Your task to perform on an android device: remove spam from my inbox in the gmail app Image 0: 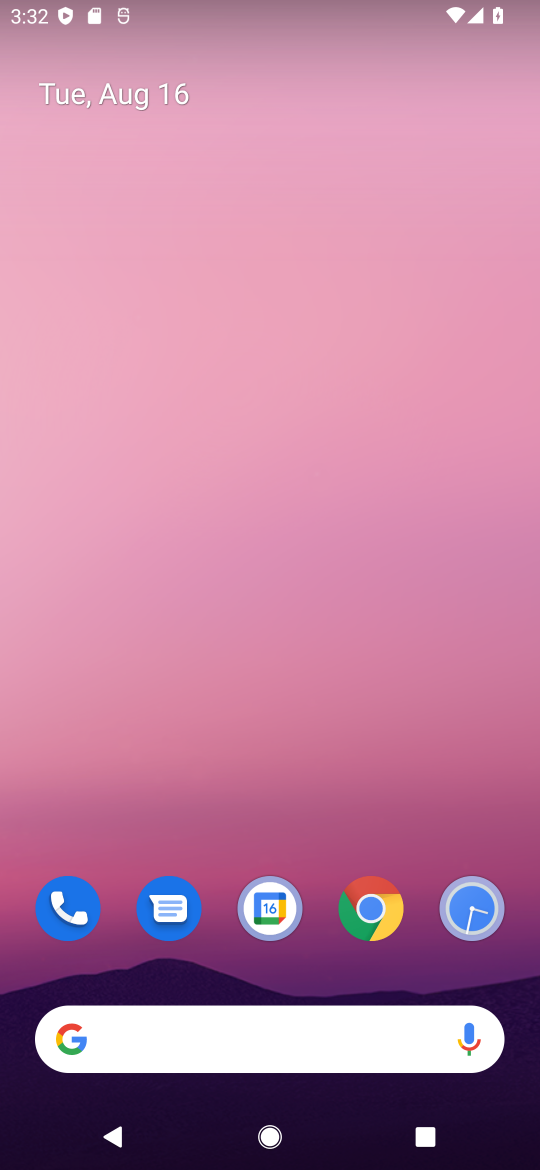
Step 0: press home button
Your task to perform on an android device: remove spam from my inbox in the gmail app Image 1: 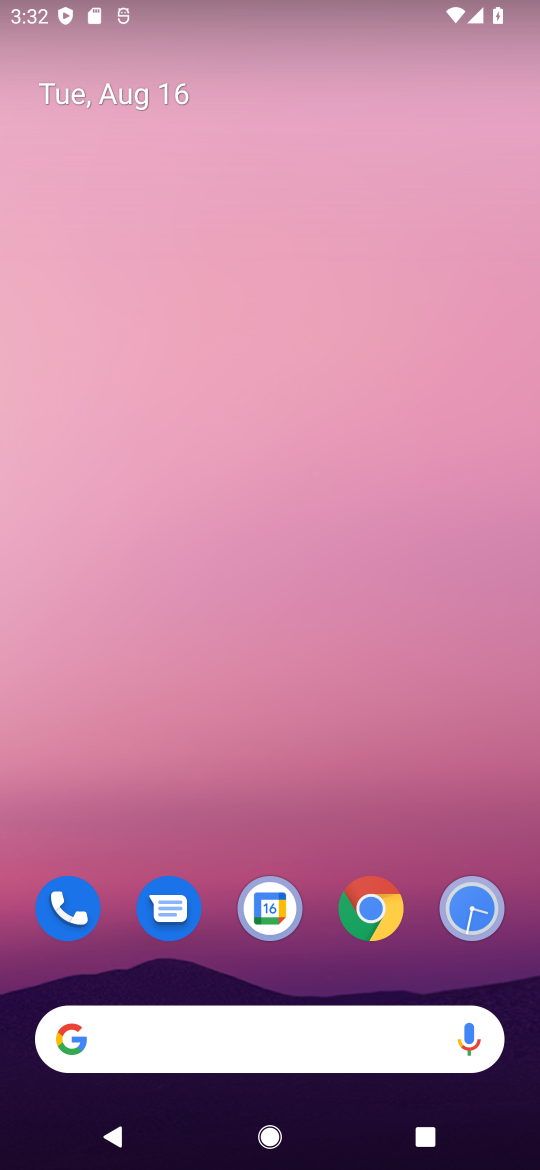
Step 1: drag from (313, 875) to (309, 97)
Your task to perform on an android device: remove spam from my inbox in the gmail app Image 2: 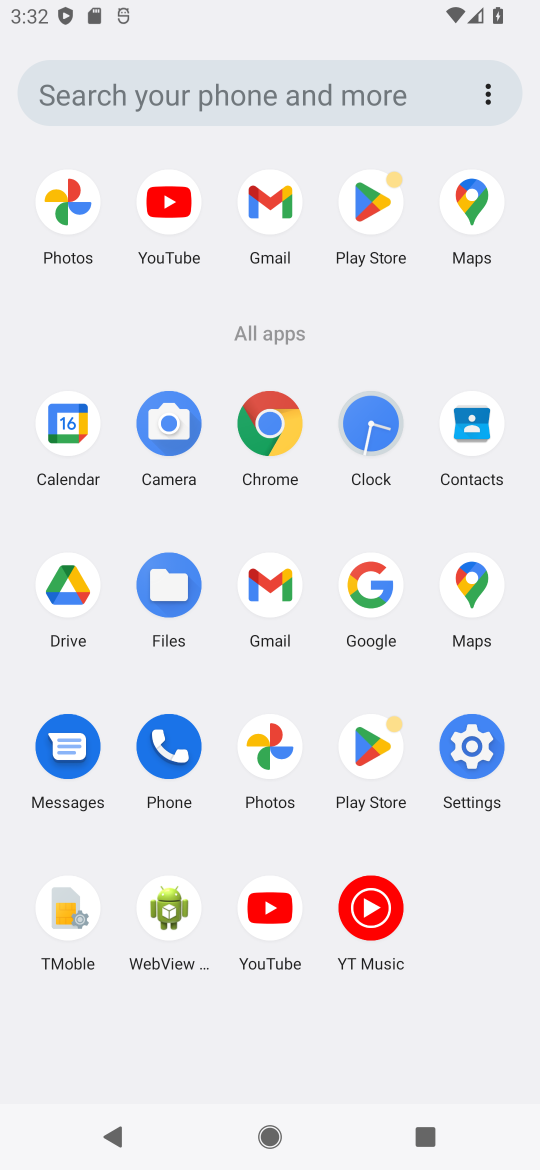
Step 2: click (269, 573)
Your task to perform on an android device: remove spam from my inbox in the gmail app Image 3: 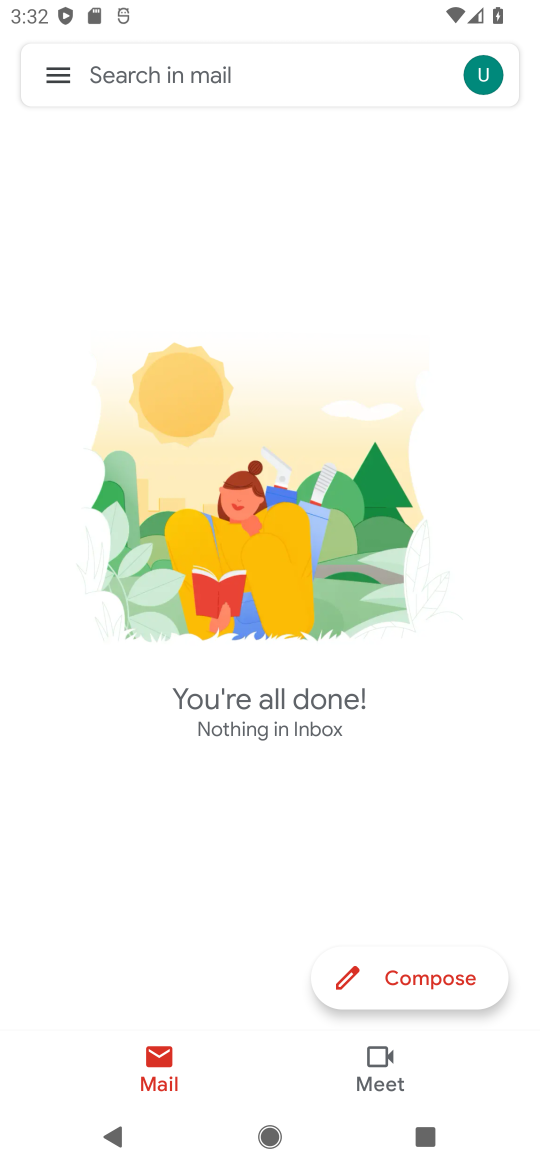
Step 3: click (57, 69)
Your task to perform on an android device: remove spam from my inbox in the gmail app Image 4: 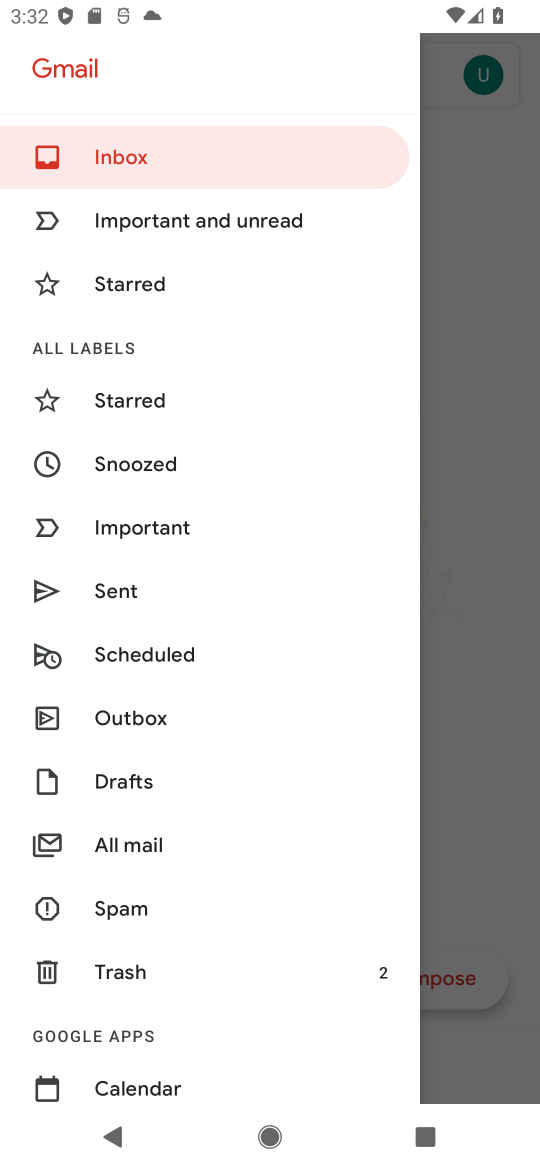
Step 4: click (164, 903)
Your task to perform on an android device: remove spam from my inbox in the gmail app Image 5: 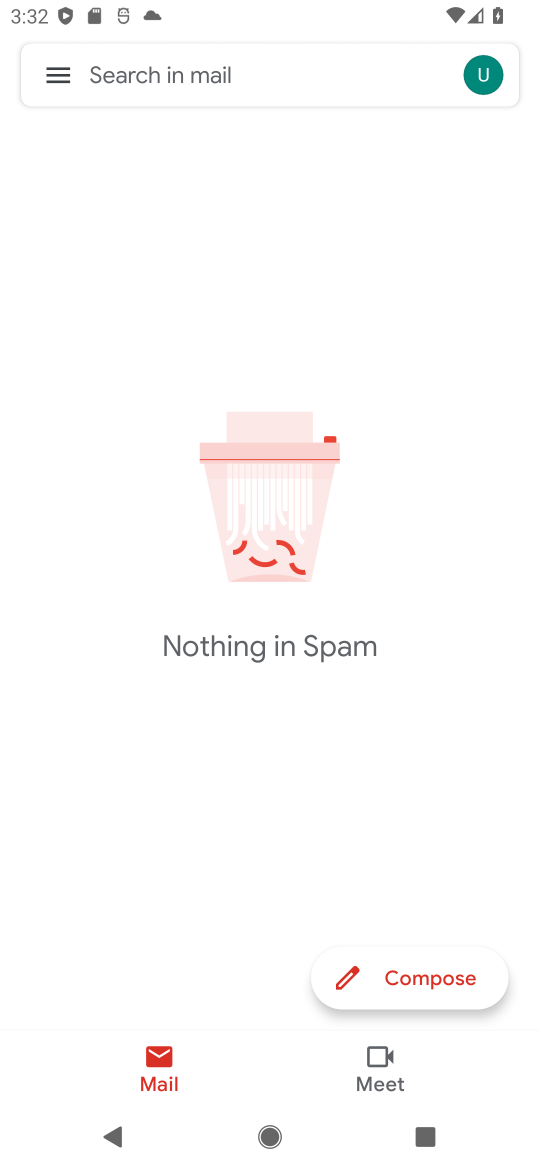
Step 5: task complete